Your task to perform on an android device: allow cookies in the chrome app Image 0: 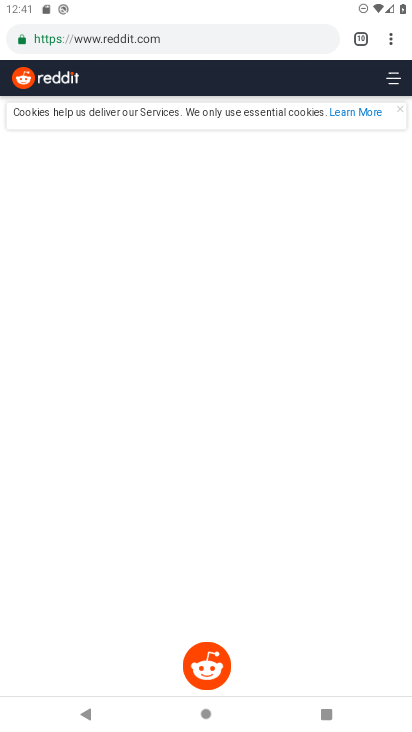
Step 0: press home button
Your task to perform on an android device: allow cookies in the chrome app Image 1: 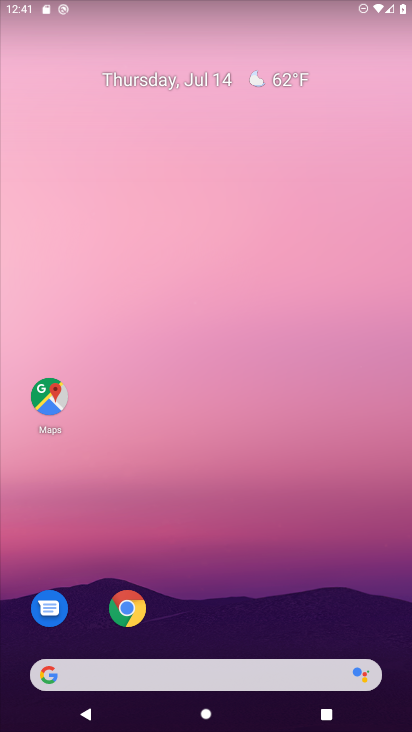
Step 1: drag from (243, 719) to (241, 148)
Your task to perform on an android device: allow cookies in the chrome app Image 2: 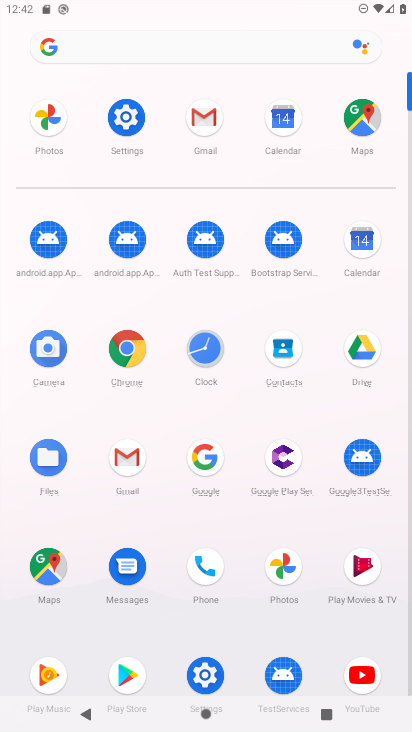
Step 2: click (126, 354)
Your task to perform on an android device: allow cookies in the chrome app Image 3: 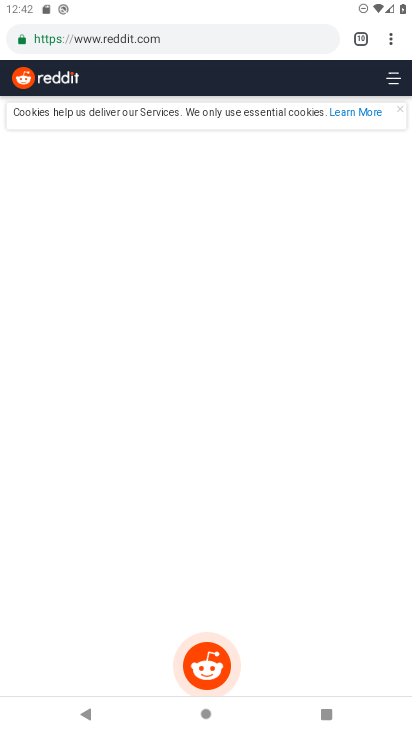
Step 3: click (391, 38)
Your task to perform on an android device: allow cookies in the chrome app Image 4: 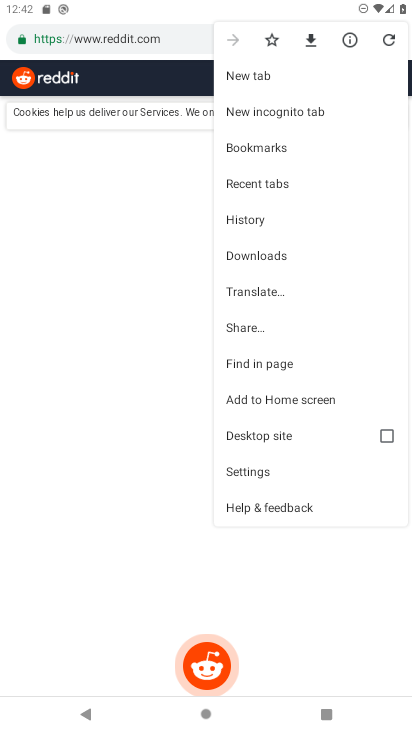
Step 4: click (244, 467)
Your task to perform on an android device: allow cookies in the chrome app Image 5: 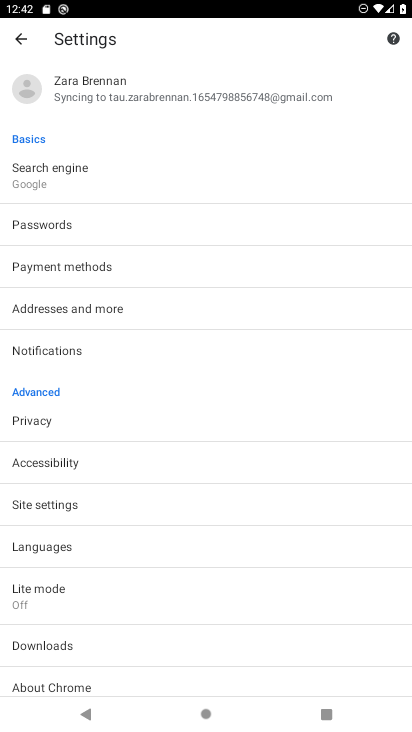
Step 5: click (23, 506)
Your task to perform on an android device: allow cookies in the chrome app Image 6: 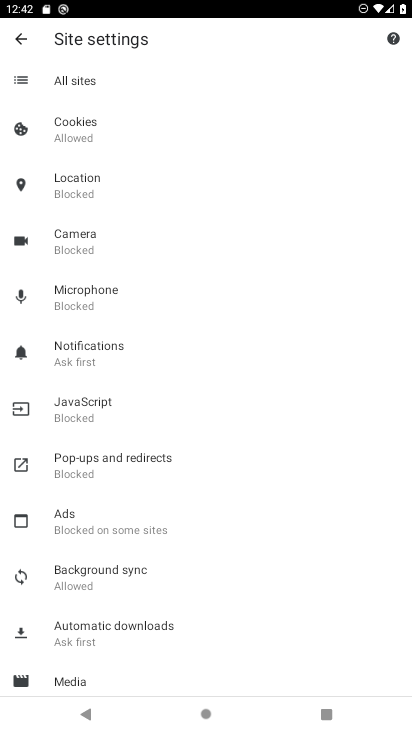
Step 6: click (73, 125)
Your task to perform on an android device: allow cookies in the chrome app Image 7: 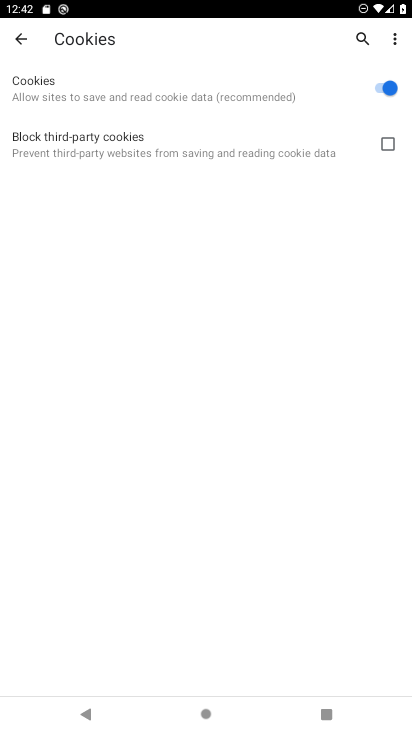
Step 7: task complete